Your task to perform on an android device: Is it going to rain this weekend? Image 0: 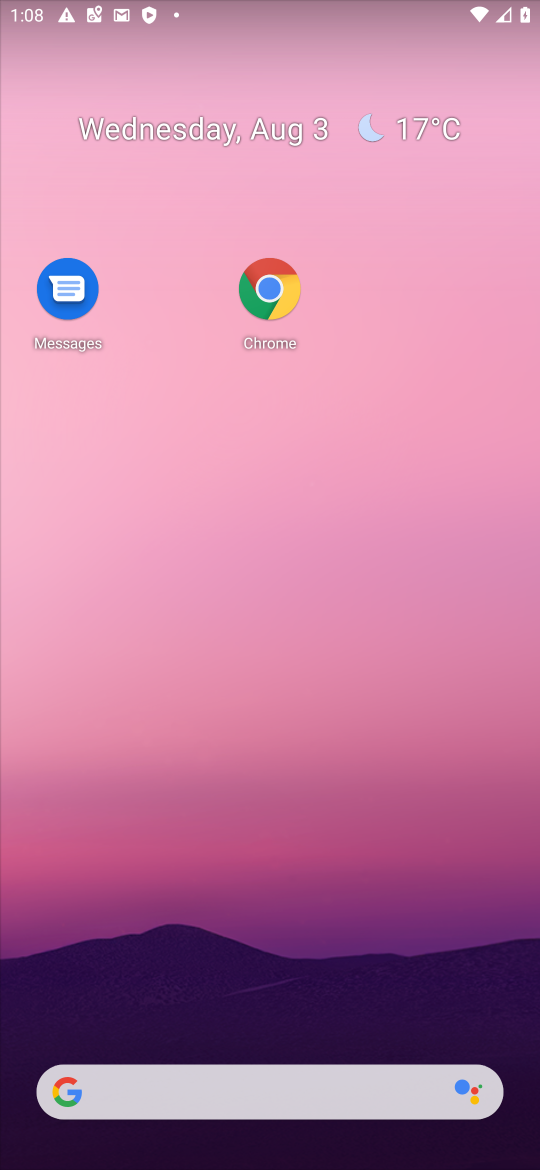
Step 0: click (284, 1077)
Your task to perform on an android device: Is it going to rain this weekend? Image 1: 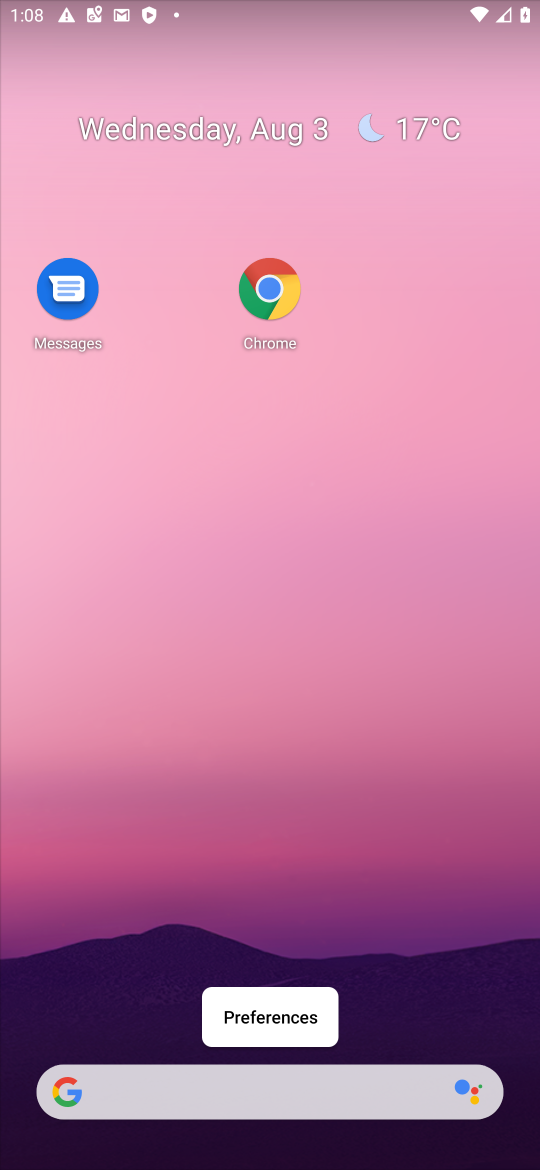
Step 1: click (292, 1084)
Your task to perform on an android device: Is it going to rain this weekend? Image 2: 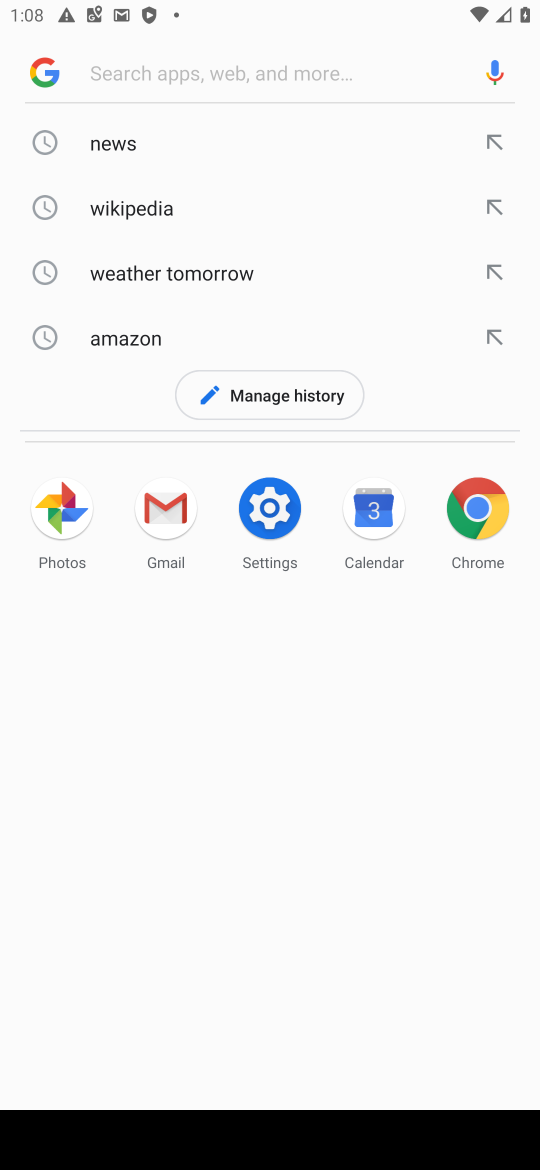
Step 2: click (213, 260)
Your task to perform on an android device: Is it going to rain this weekend? Image 3: 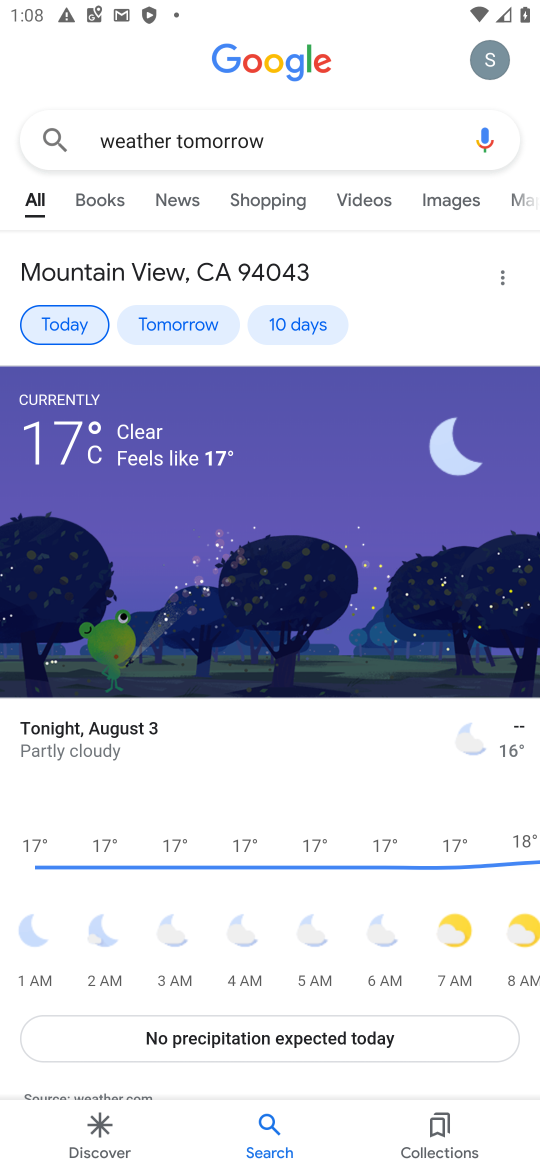
Step 3: task complete